Your task to perform on an android device: turn off notifications settings in the gmail app Image 0: 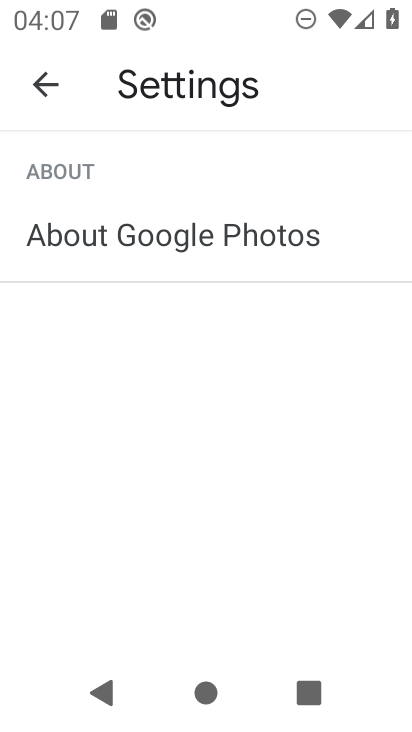
Step 0: press back button
Your task to perform on an android device: turn off notifications settings in the gmail app Image 1: 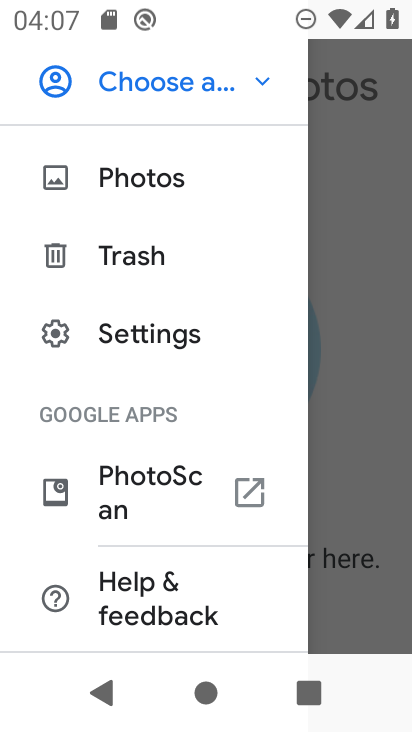
Step 1: press back button
Your task to perform on an android device: turn off notifications settings in the gmail app Image 2: 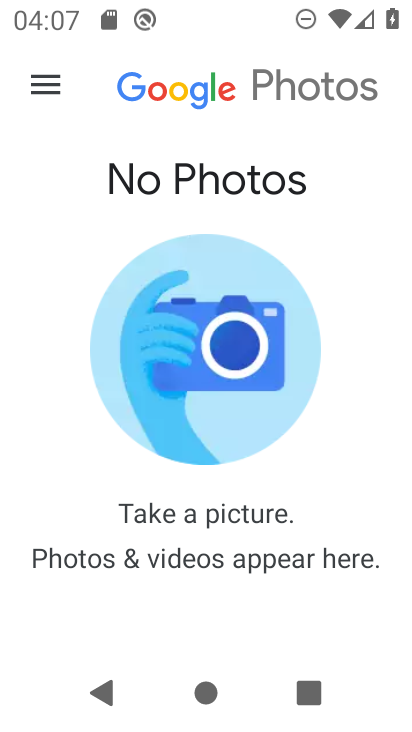
Step 2: press home button
Your task to perform on an android device: turn off notifications settings in the gmail app Image 3: 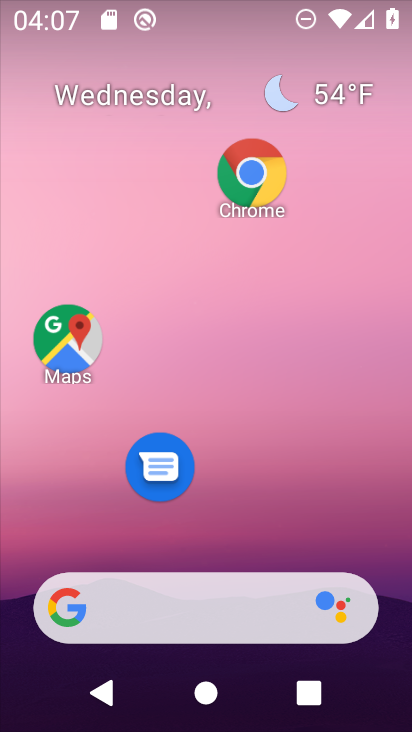
Step 3: drag from (227, 571) to (274, 74)
Your task to perform on an android device: turn off notifications settings in the gmail app Image 4: 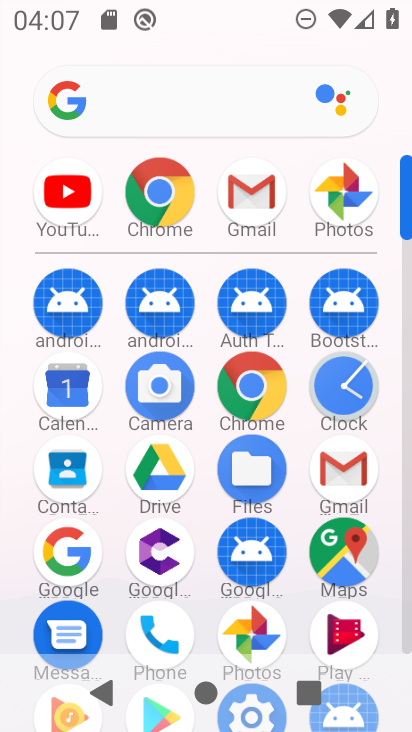
Step 4: click (261, 197)
Your task to perform on an android device: turn off notifications settings in the gmail app Image 5: 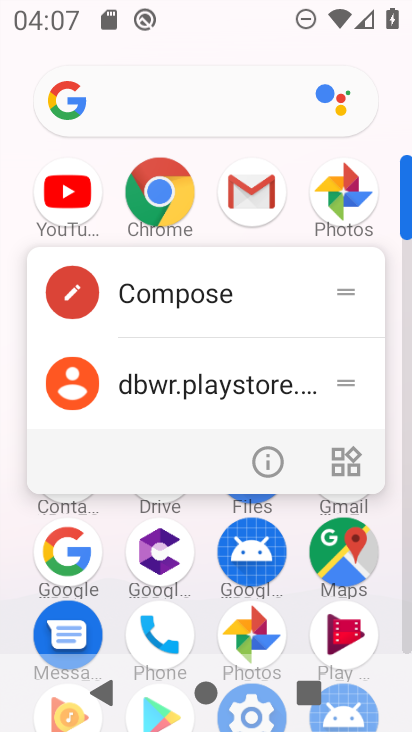
Step 5: click (270, 458)
Your task to perform on an android device: turn off notifications settings in the gmail app Image 6: 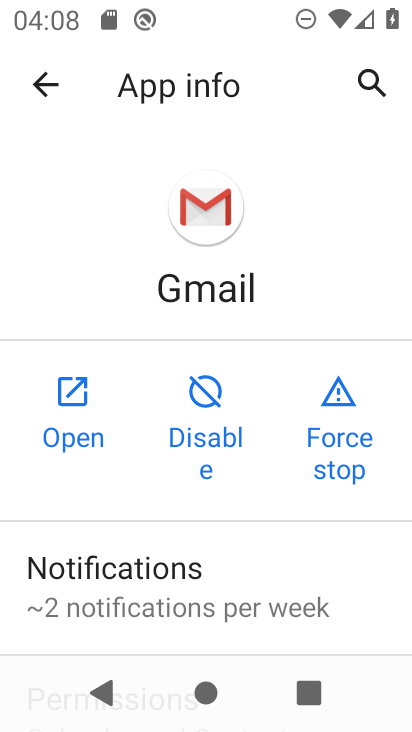
Step 6: click (133, 573)
Your task to perform on an android device: turn off notifications settings in the gmail app Image 7: 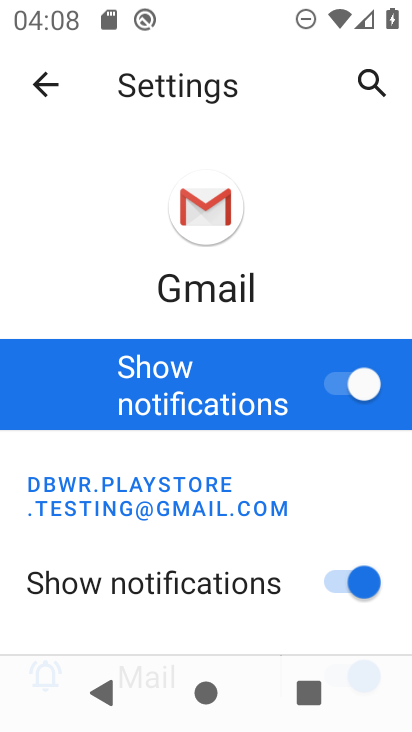
Step 7: click (377, 380)
Your task to perform on an android device: turn off notifications settings in the gmail app Image 8: 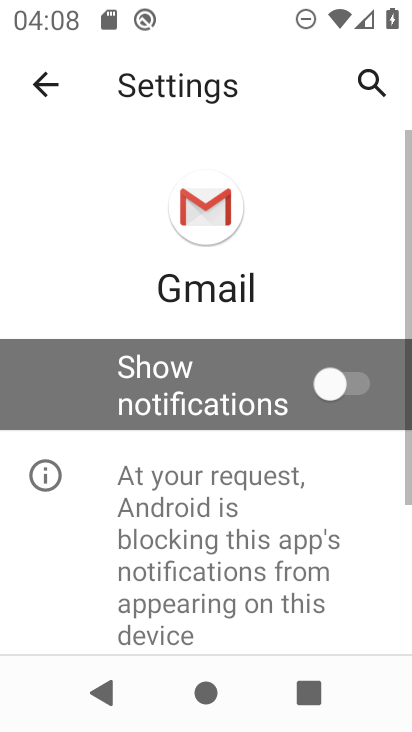
Step 8: task complete